Your task to perform on an android device: find photos in the google photos app Image 0: 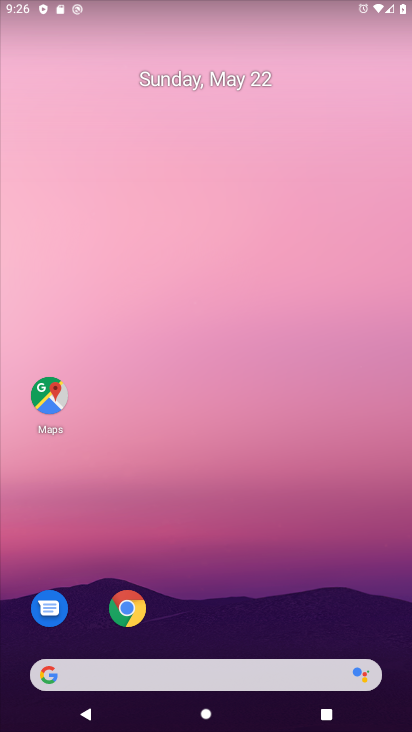
Step 0: drag from (233, 583) to (212, 48)
Your task to perform on an android device: find photos in the google photos app Image 1: 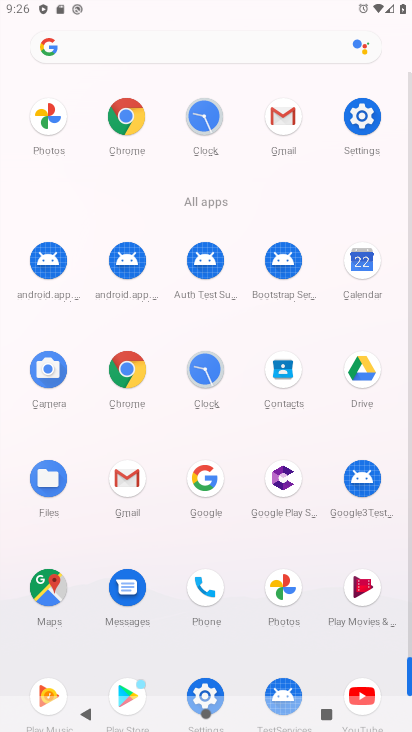
Step 1: drag from (6, 535) to (15, 206)
Your task to perform on an android device: find photos in the google photos app Image 2: 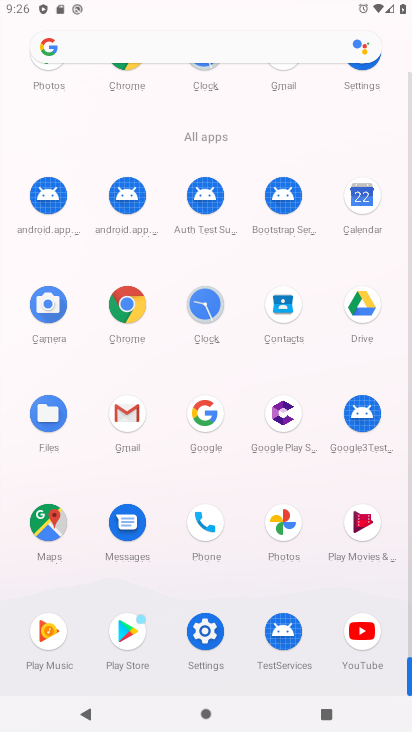
Step 2: click (284, 520)
Your task to perform on an android device: find photos in the google photos app Image 3: 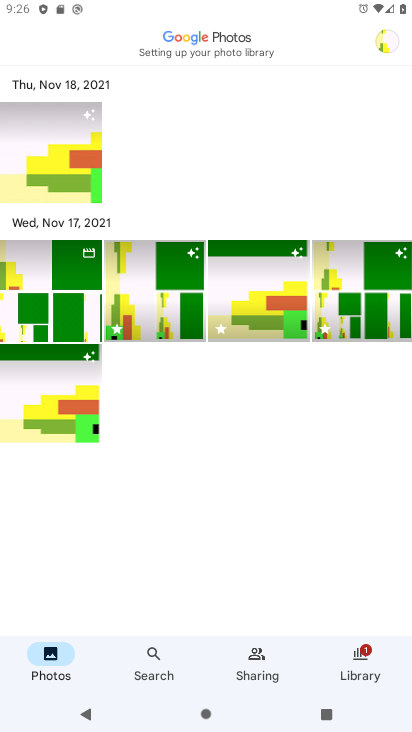
Step 3: task complete